Your task to perform on an android device: Open Maps and search for coffee Image 0: 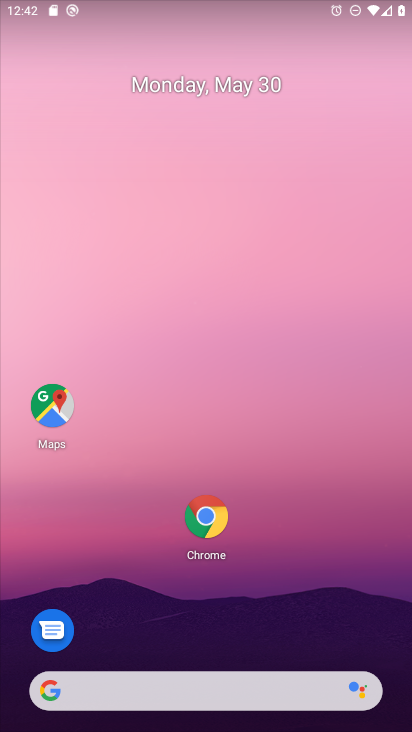
Step 0: press home button
Your task to perform on an android device: Open Maps and search for coffee Image 1: 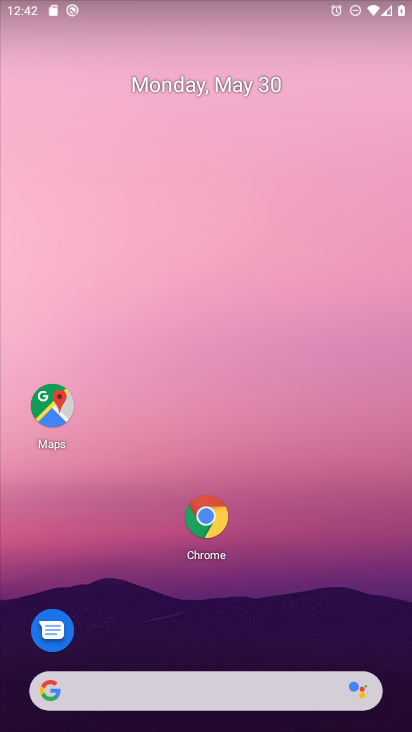
Step 1: click (58, 411)
Your task to perform on an android device: Open Maps and search for coffee Image 2: 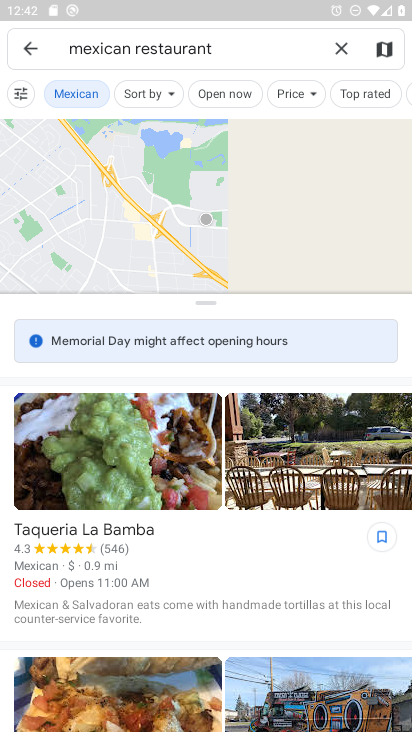
Step 2: click (341, 47)
Your task to perform on an android device: Open Maps and search for coffee Image 3: 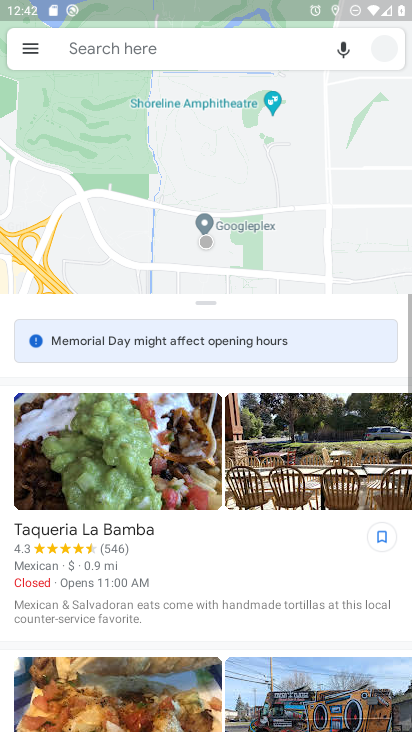
Step 3: click (158, 53)
Your task to perform on an android device: Open Maps and search for coffee Image 4: 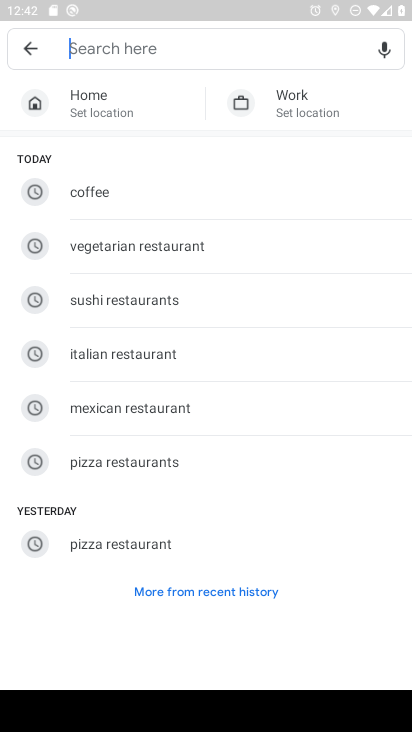
Step 4: click (83, 201)
Your task to perform on an android device: Open Maps and search for coffee Image 5: 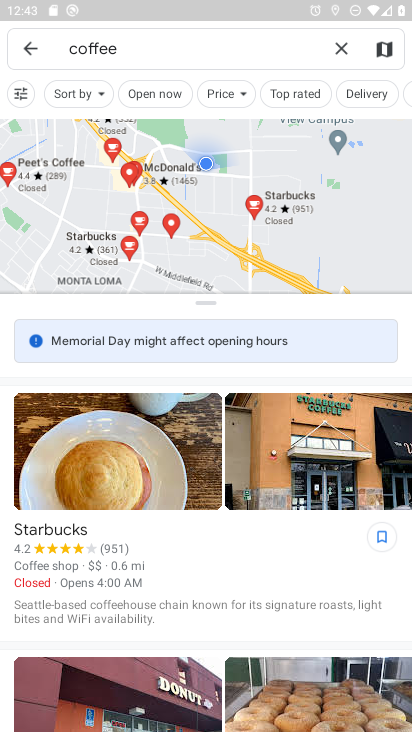
Step 5: task complete